Your task to perform on an android device: empty trash in google photos Image 0: 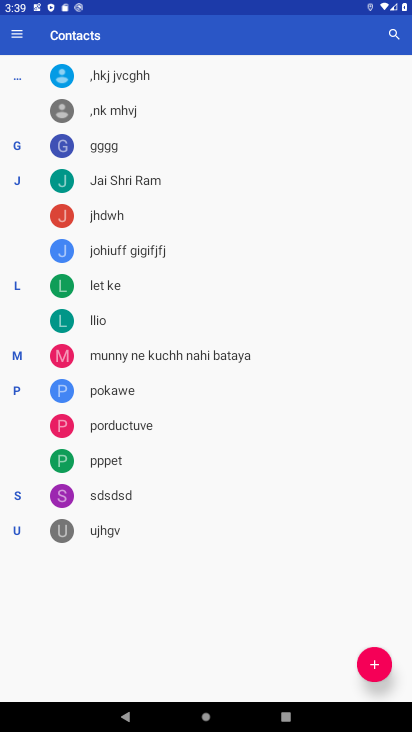
Step 0: press back button
Your task to perform on an android device: empty trash in google photos Image 1: 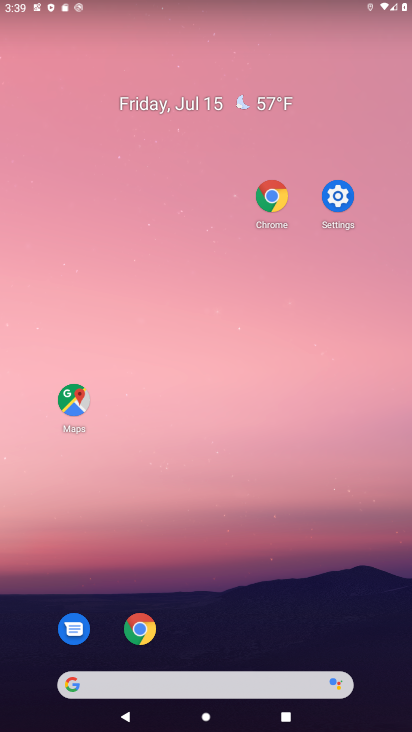
Step 1: drag from (200, 427) to (254, 75)
Your task to perform on an android device: empty trash in google photos Image 2: 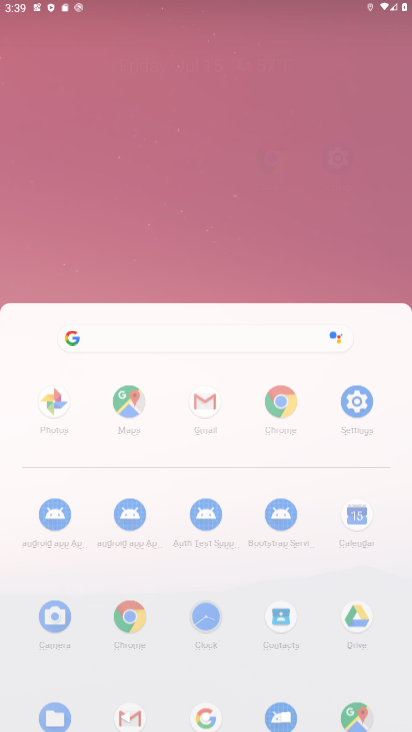
Step 2: drag from (220, 156) to (214, 29)
Your task to perform on an android device: empty trash in google photos Image 3: 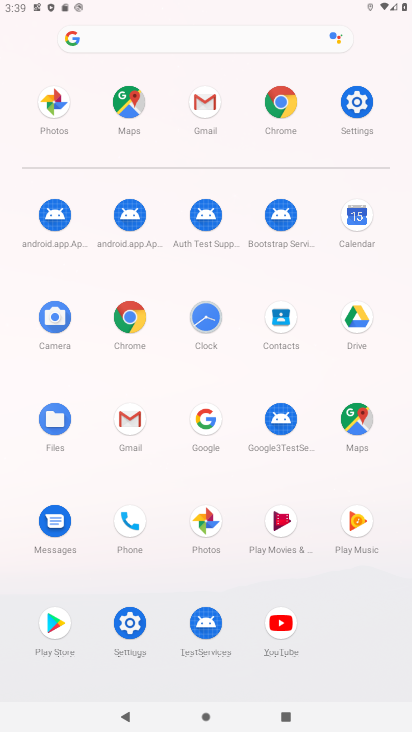
Step 3: click (203, 522)
Your task to perform on an android device: empty trash in google photos Image 4: 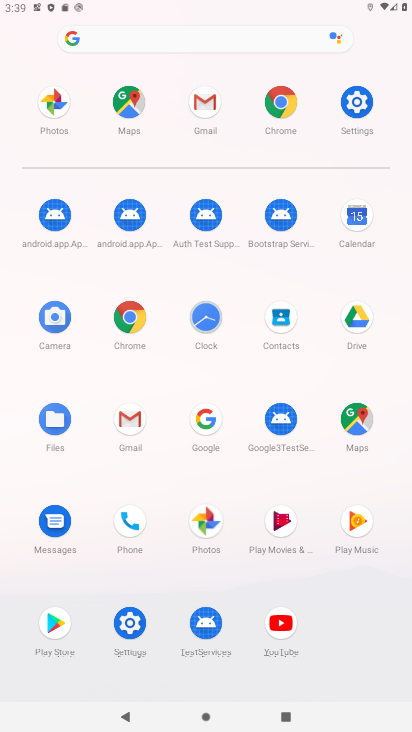
Step 4: click (203, 522)
Your task to perform on an android device: empty trash in google photos Image 5: 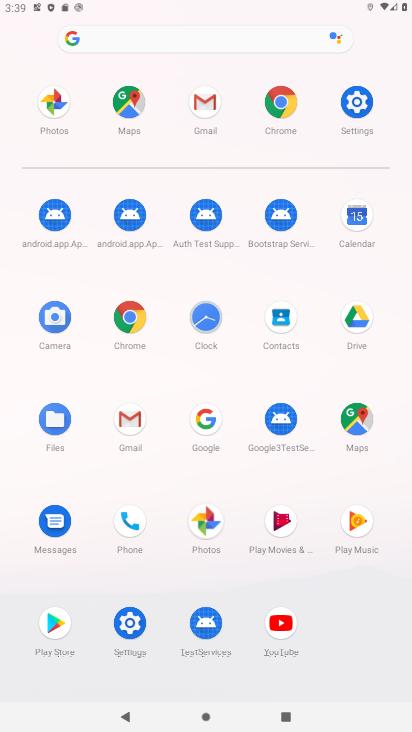
Step 5: click (203, 522)
Your task to perform on an android device: empty trash in google photos Image 6: 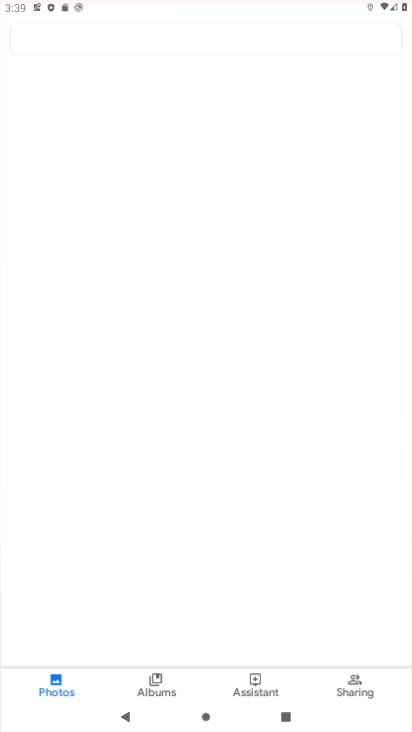
Step 6: click (203, 522)
Your task to perform on an android device: empty trash in google photos Image 7: 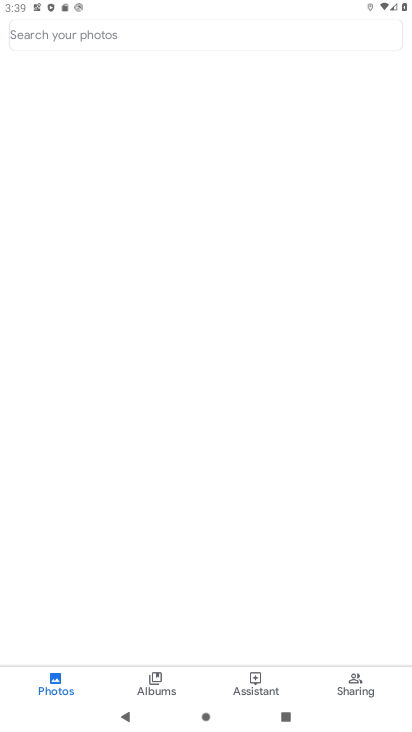
Step 7: click (203, 522)
Your task to perform on an android device: empty trash in google photos Image 8: 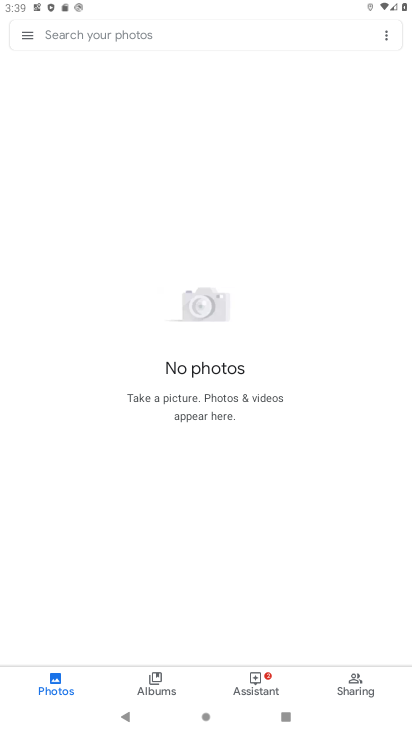
Step 8: drag from (19, 35) to (67, 372)
Your task to perform on an android device: empty trash in google photos Image 9: 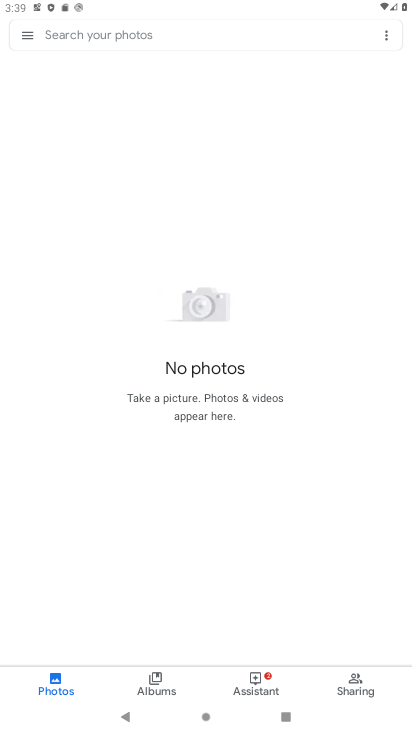
Step 9: drag from (27, 37) to (50, 185)
Your task to perform on an android device: empty trash in google photos Image 10: 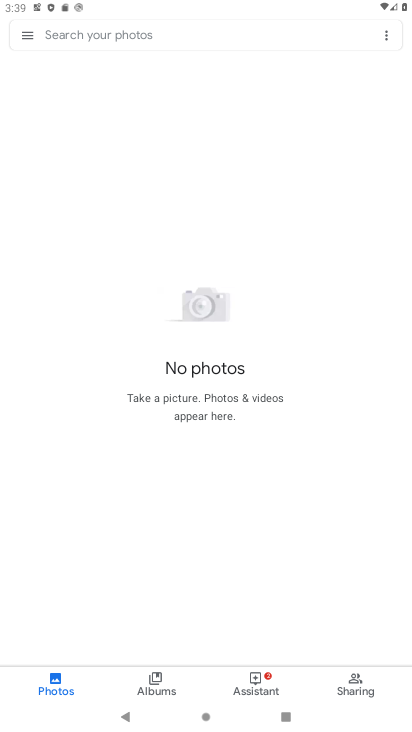
Step 10: click (33, 36)
Your task to perform on an android device: empty trash in google photos Image 11: 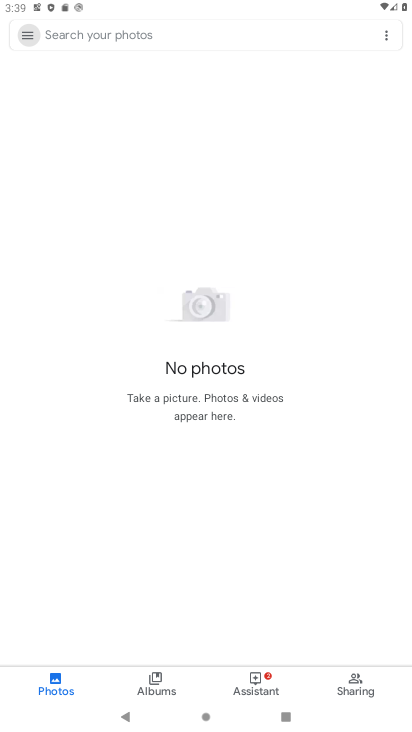
Step 11: drag from (33, 36) to (51, 136)
Your task to perform on an android device: empty trash in google photos Image 12: 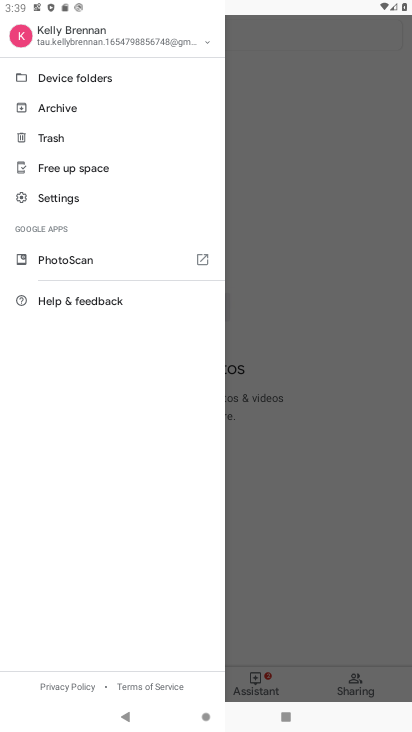
Step 12: click (51, 136)
Your task to perform on an android device: empty trash in google photos Image 13: 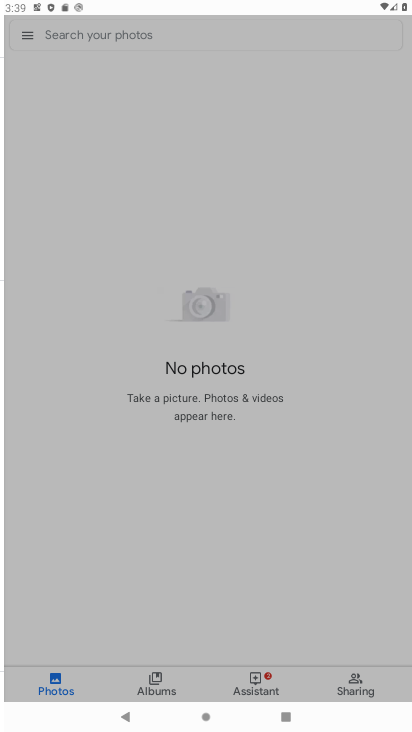
Step 13: click (52, 136)
Your task to perform on an android device: empty trash in google photos Image 14: 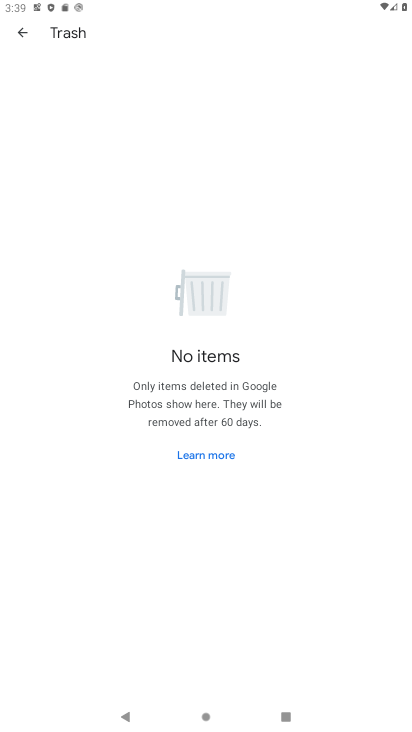
Step 14: task complete